Your task to perform on an android device: Go to eBay Image 0: 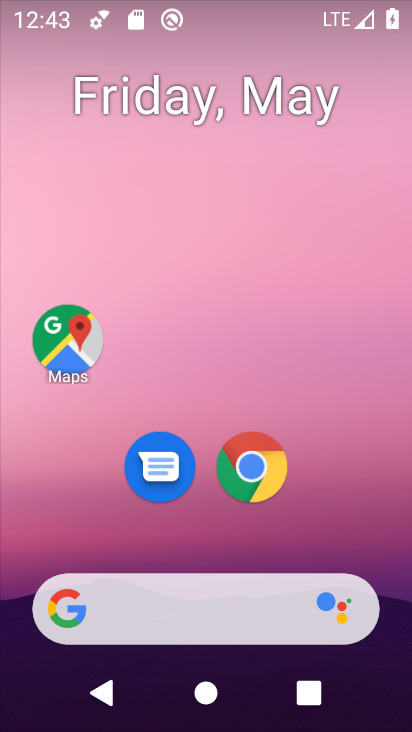
Step 0: drag from (372, 546) to (346, 105)
Your task to perform on an android device: Go to eBay Image 1: 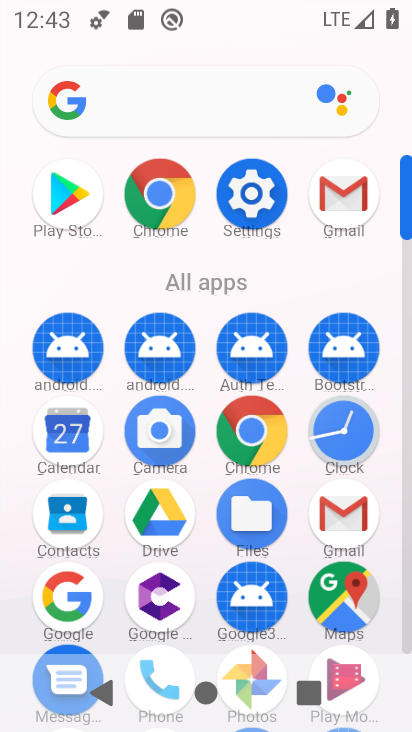
Step 1: click (182, 184)
Your task to perform on an android device: Go to eBay Image 2: 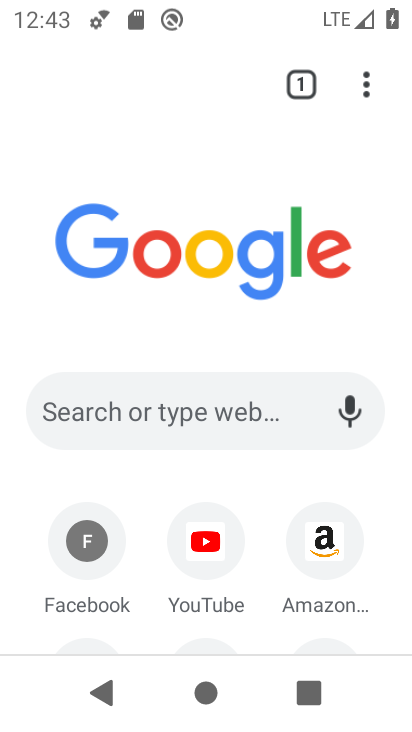
Step 2: drag from (219, 523) to (253, 110)
Your task to perform on an android device: Go to eBay Image 3: 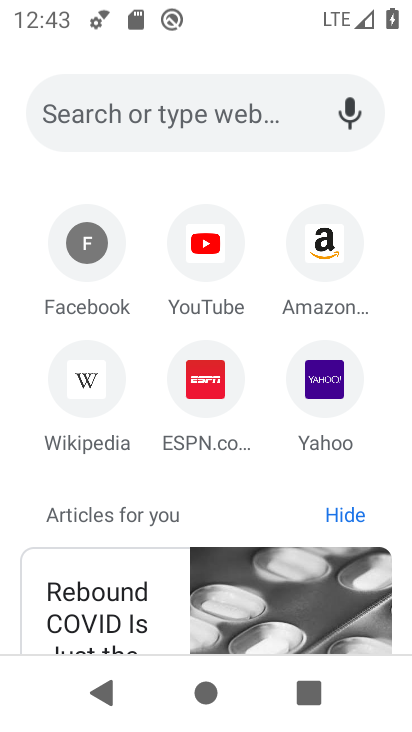
Step 3: drag from (220, 554) to (254, 236)
Your task to perform on an android device: Go to eBay Image 4: 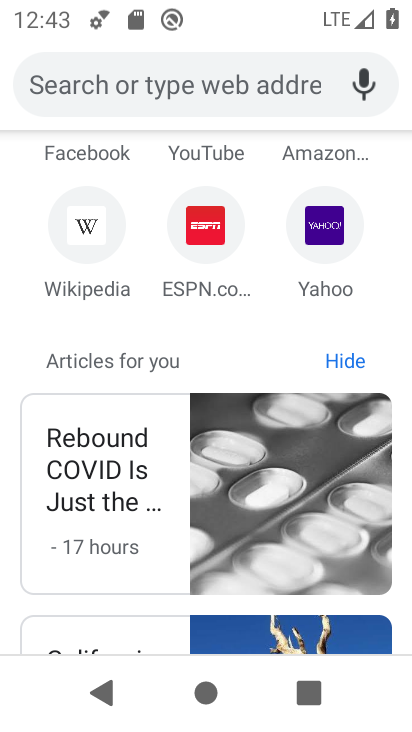
Step 4: click (137, 655)
Your task to perform on an android device: Go to eBay Image 5: 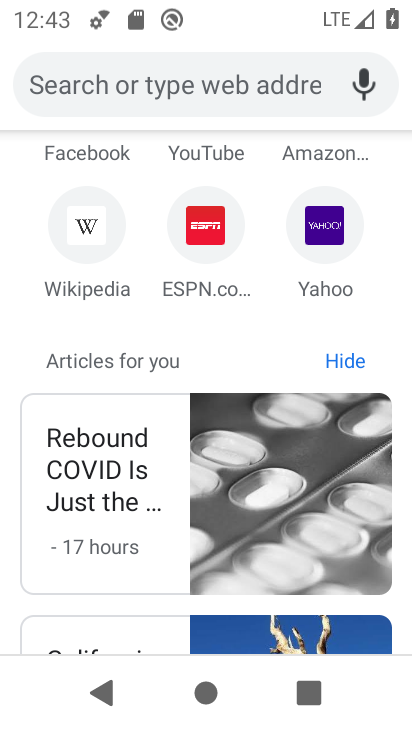
Step 5: drag from (131, 365) to (133, 606)
Your task to perform on an android device: Go to eBay Image 6: 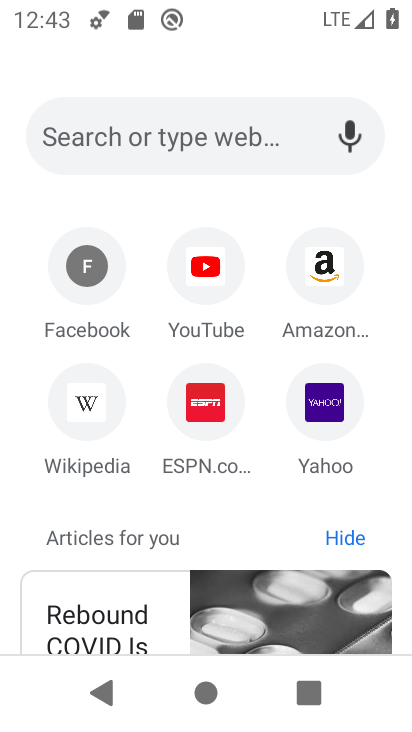
Step 6: click (195, 134)
Your task to perform on an android device: Go to eBay Image 7: 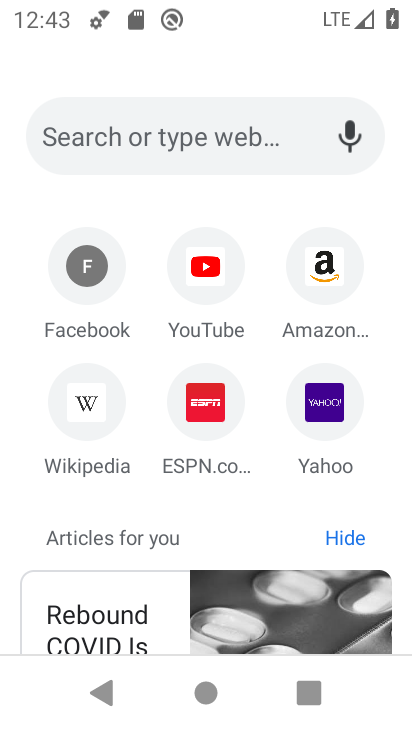
Step 7: click (226, 137)
Your task to perform on an android device: Go to eBay Image 8: 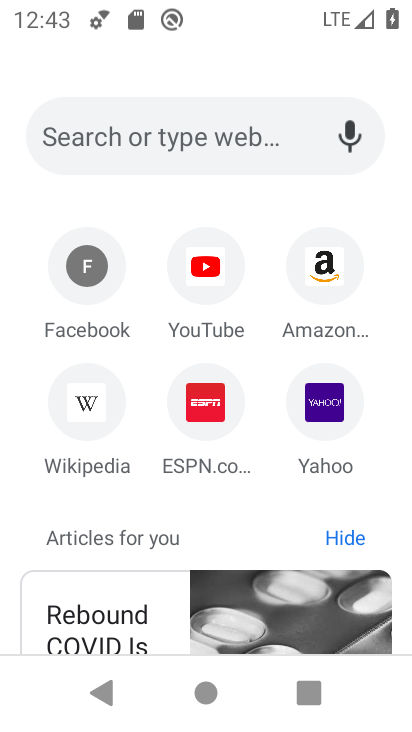
Step 8: click (280, 124)
Your task to perform on an android device: Go to eBay Image 9: 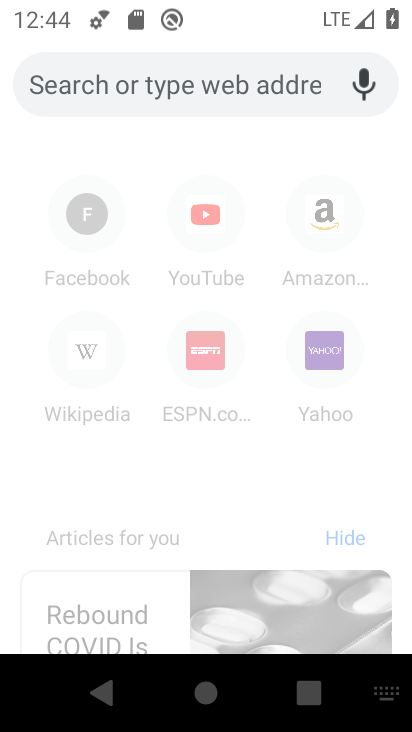
Step 9: type "ebay"
Your task to perform on an android device: Go to eBay Image 10: 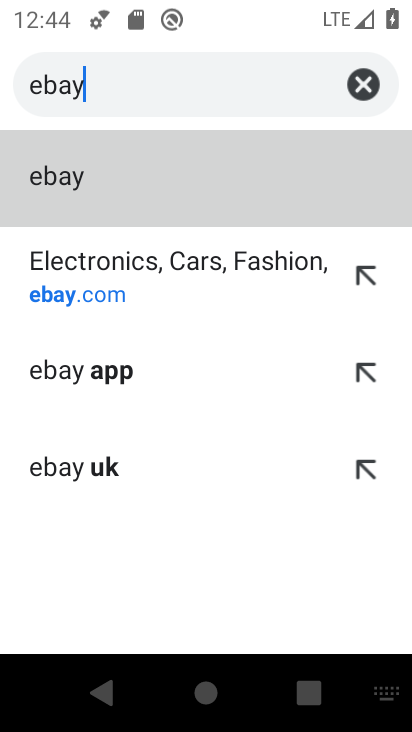
Step 10: click (90, 268)
Your task to perform on an android device: Go to eBay Image 11: 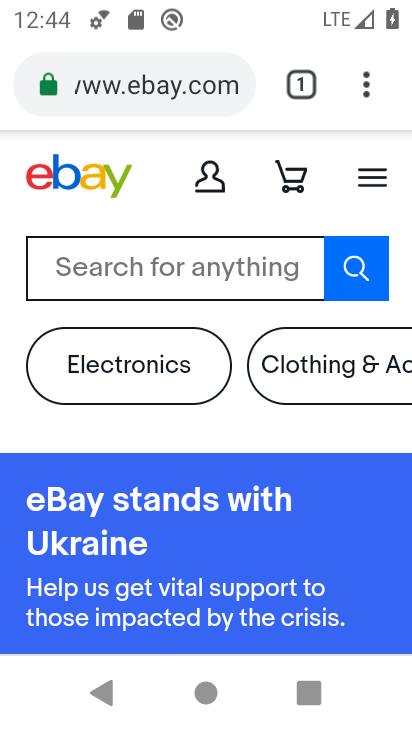
Step 11: task complete